Your task to perform on an android device: Open calendar and show me the second week of next month Image 0: 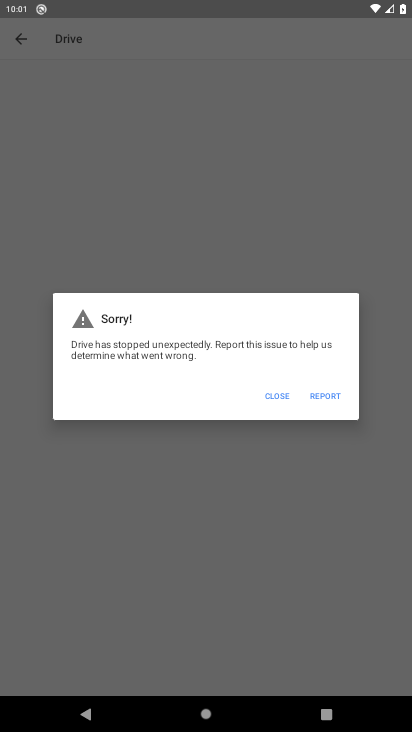
Step 0: press home button
Your task to perform on an android device: Open calendar and show me the second week of next month Image 1: 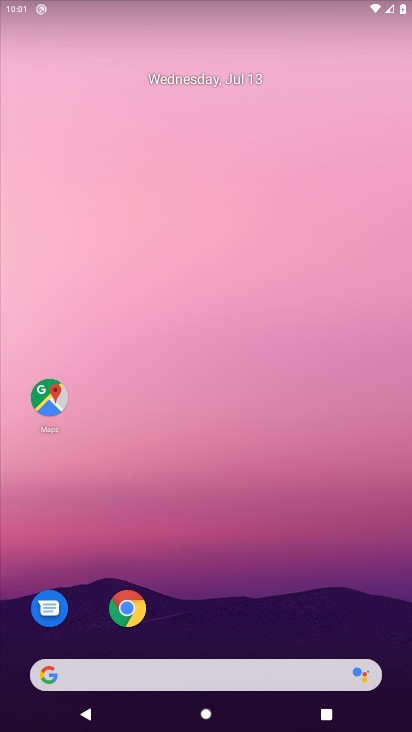
Step 1: drag from (22, 708) to (3, 603)
Your task to perform on an android device: Open calendar and show me the second week of next month Image 2: 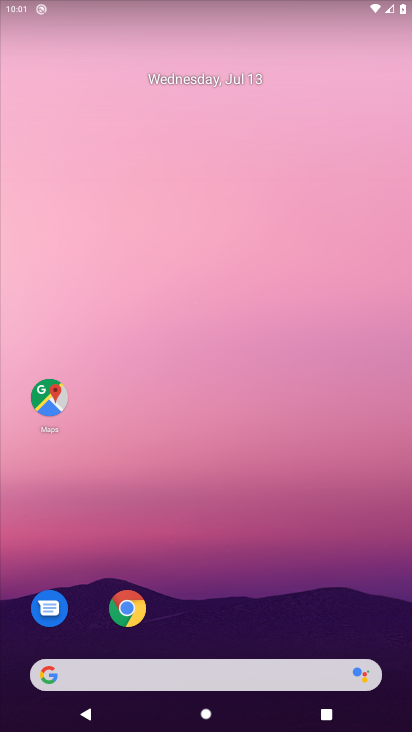
Step 2: drag from (133, 477) to (231, 138)
Your task to perform on an android device: Open calendar and show me the second week of next month Image 3: 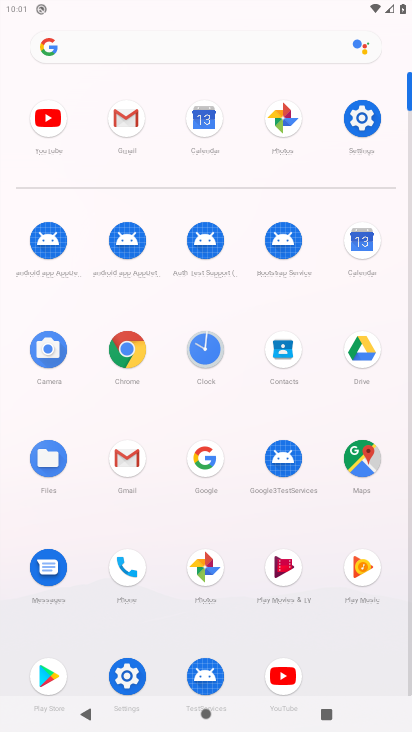
Step 3: click (360, 235)
Your task to perform on an android device: Open calendar and show me the second week of next month Image 4: 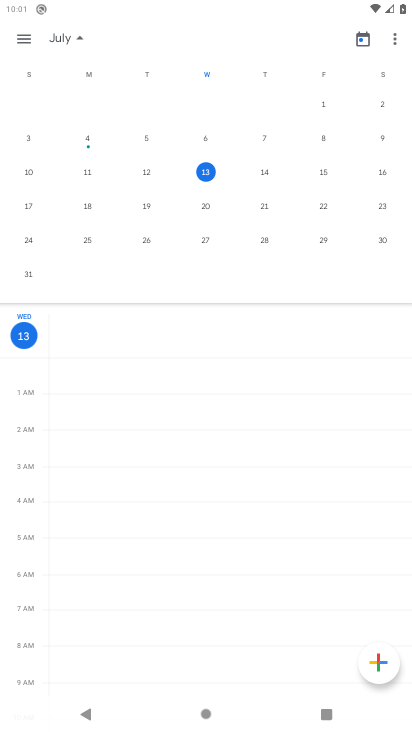
Step 4: drag from (383, 160) to (82, 142)
Your task to perform on an android device: Open calendar and show me the second week of next month Image 5: 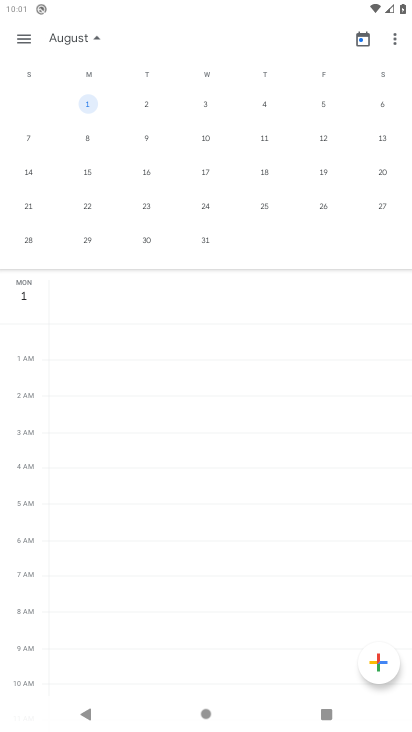
Step 5: click (86, 137)
Your task to perform on an android device: Open calendar and show me the second week of next month Image 6: 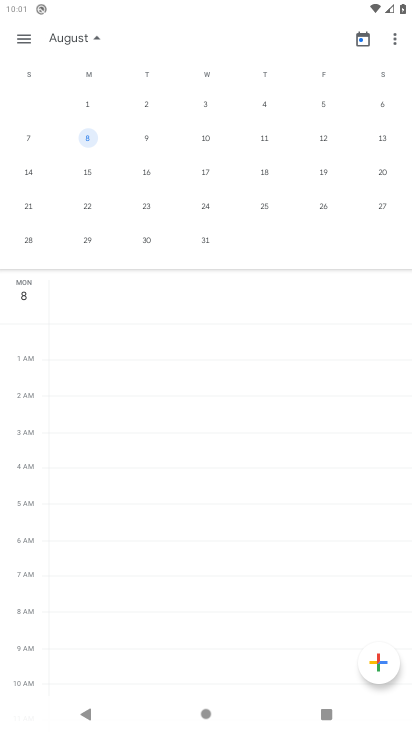
Step 6: task complete